Your task to perform on an android device: Search for hotels in Austin Image 0: 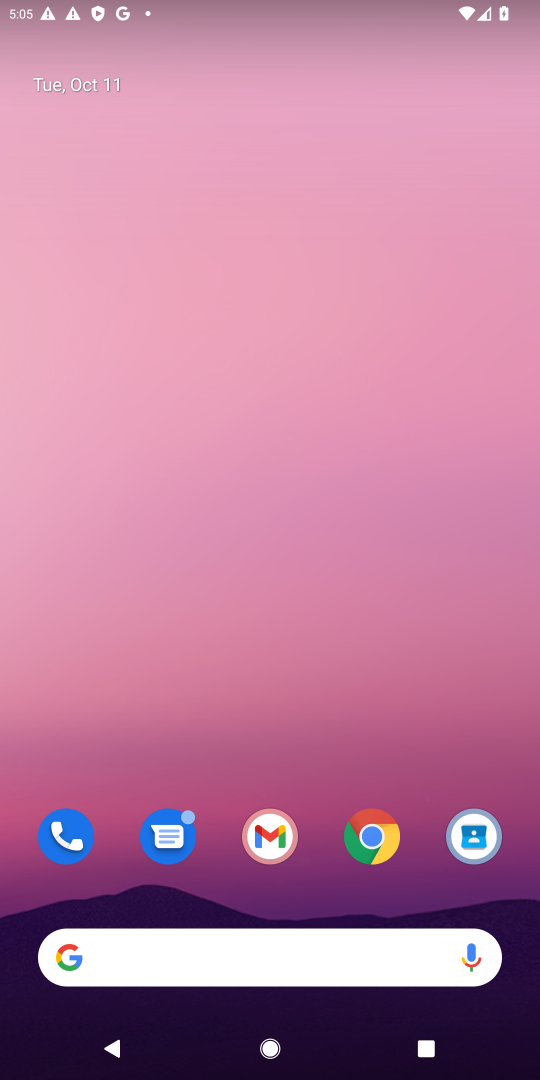
Step 0: click (365, 828)
Your task to perform on an android device: Search for hotels in Austin Image 1: 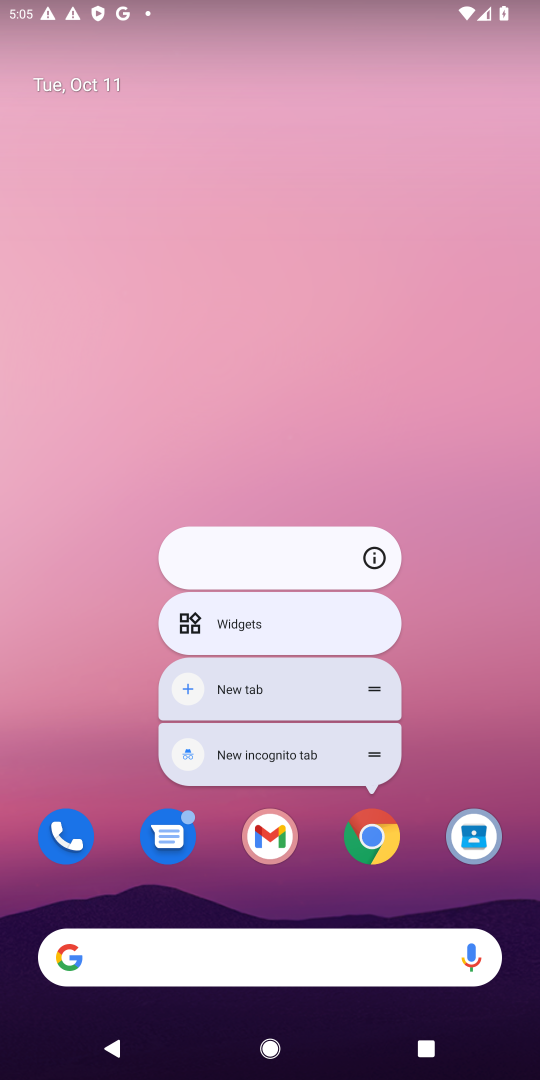
Step 1: click (369, 827)
Your task to perform on an android device: Search for hotels in Austin Image 2: 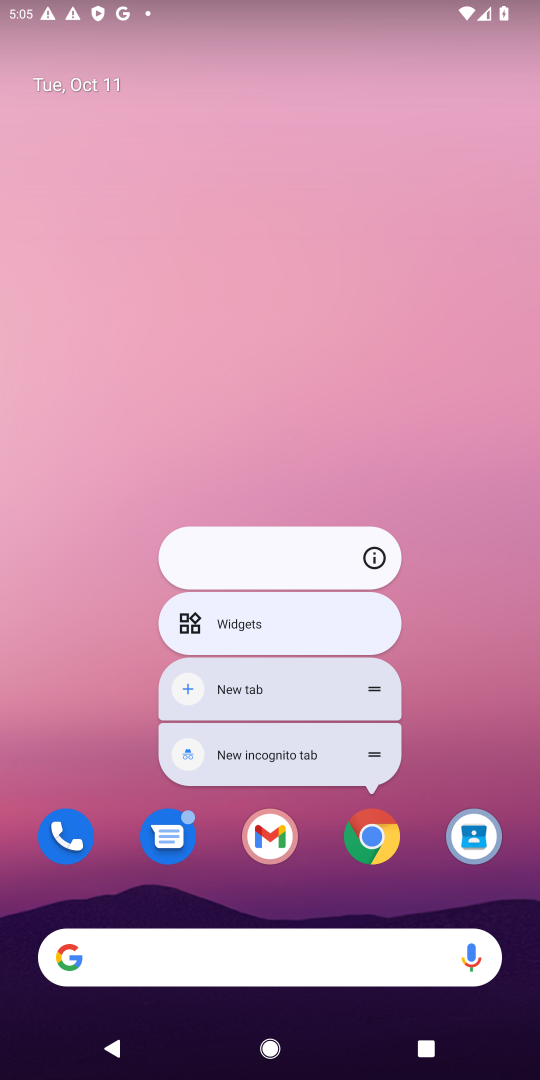
Step 2: click (369, 825)
Your task to perform on an android device: Search for hotels in Austin Image 3: 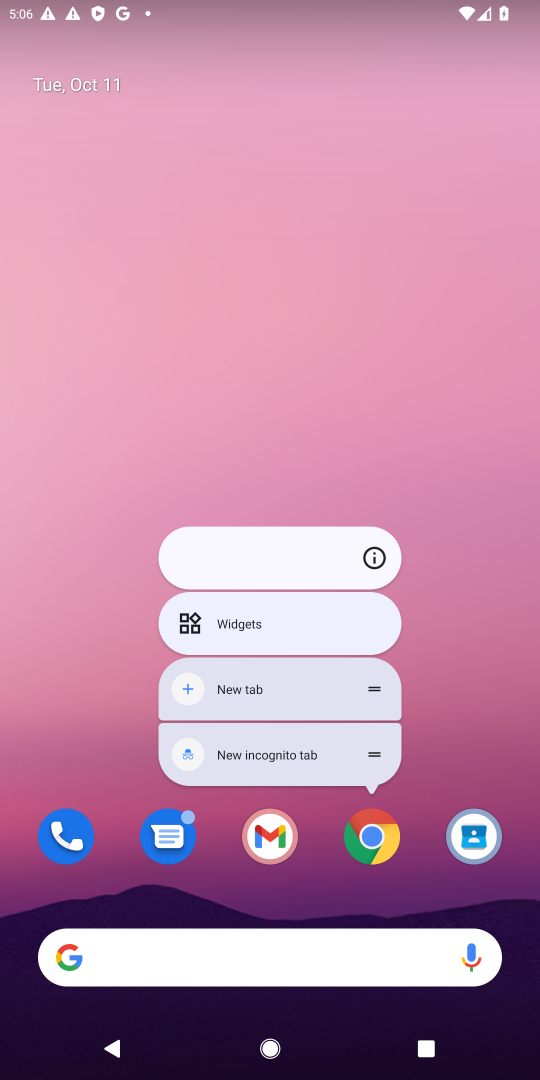
Step 3: click (368, 834)
Your task to perform on an android device: Search for hotels in Austin Image 4: 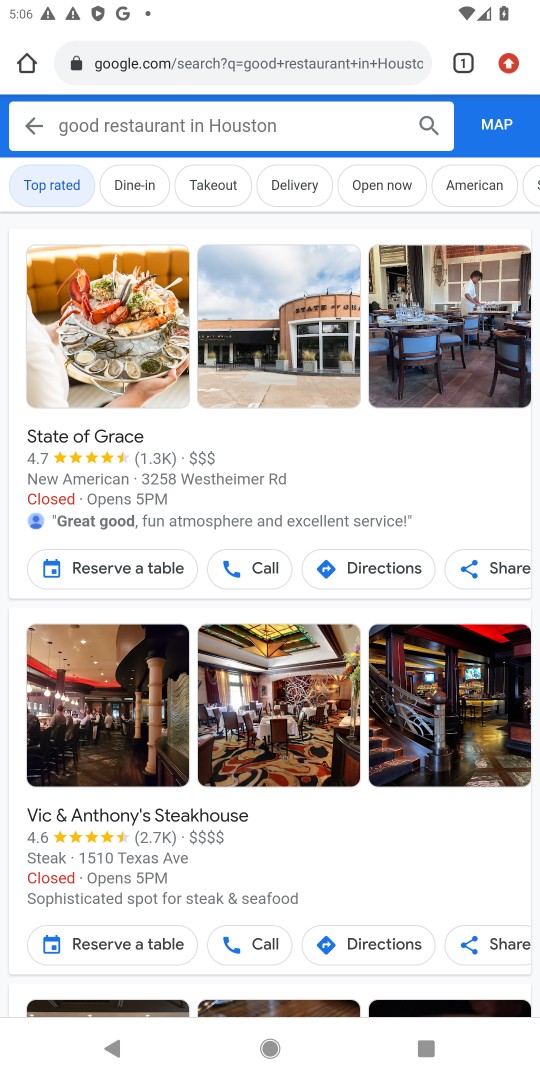
Step 4: click (283, 56)
Your task to perform on an android device: Search for hotels in Austin Image 5: 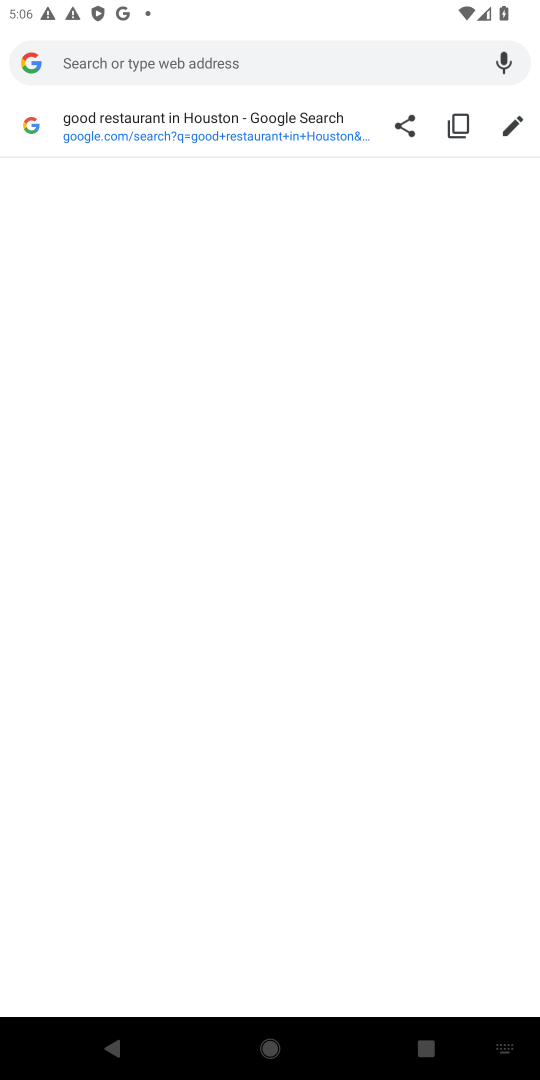
Step 5: type "hotels in Austin"
Your task to perform on an android device: Search for hotels in Austin Image 6: 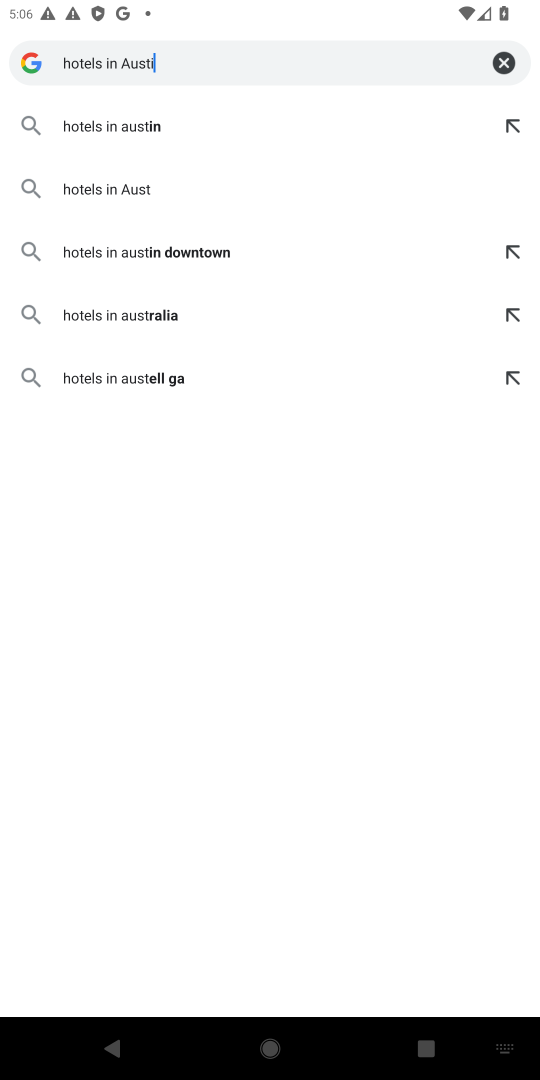
Step 6: press enter
Your task to perform on an android device: Search for hotels in Austin Image 7: 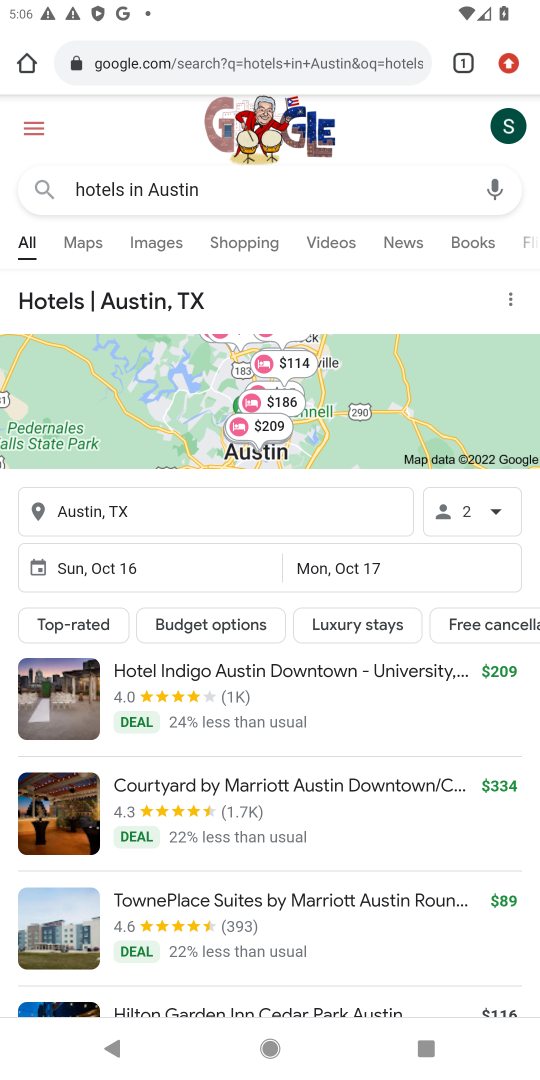
Step 7: drag from (138, 734) to (221, 332)
Your task to perform on an android device: Search for hotels in Austin Image 8: 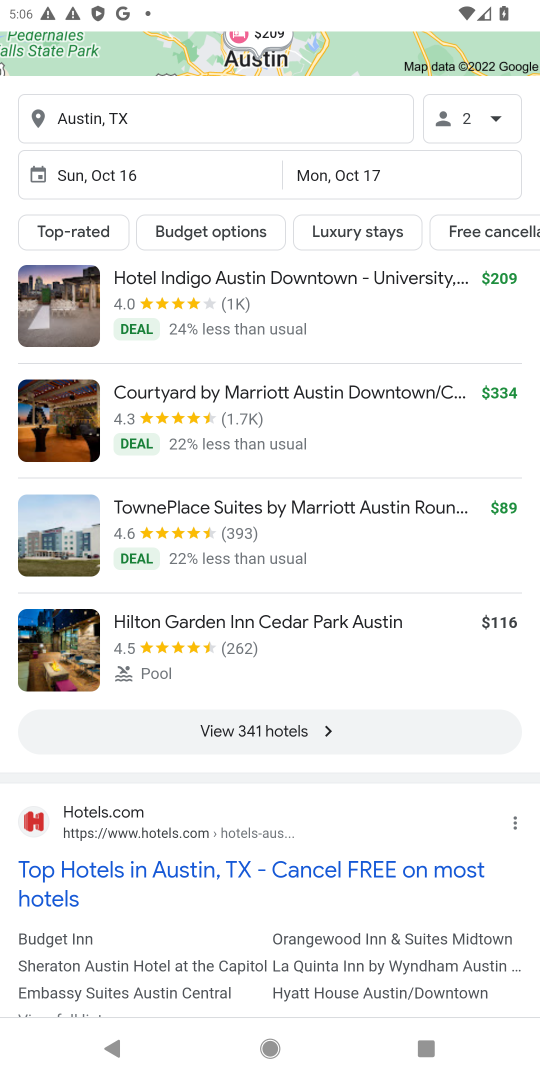
Step 8: click (301, 728)
Your task to perform on an android device: Search for hotels in Austin Image 9: 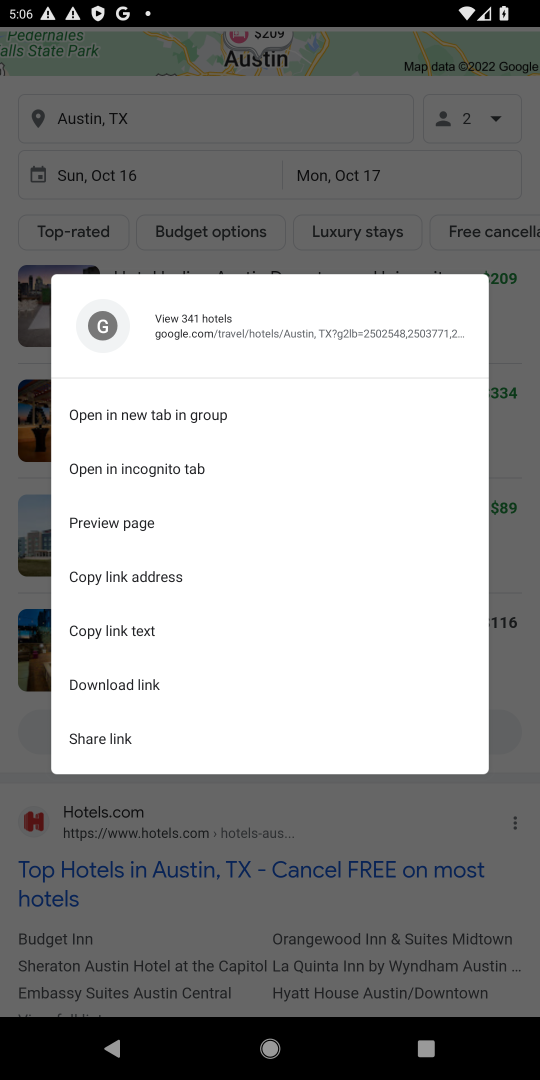
Step 9: click (504, 738)
Your task to perform on an android device: Search for hotels in Austin Image 10: 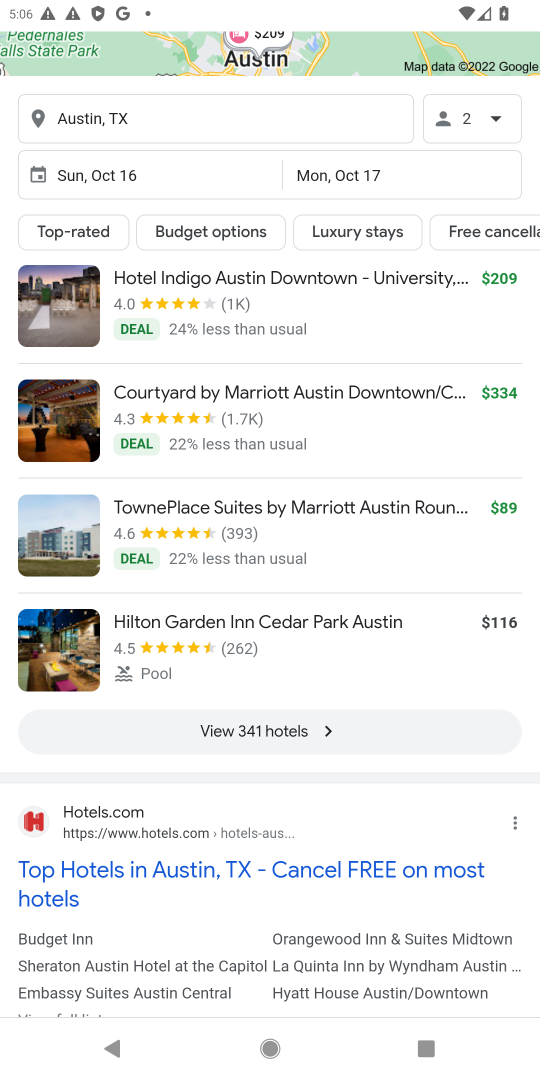
Step 10: click (265, 730)
Your task to perform on an android device: Search for hotels in Austin Image 11: 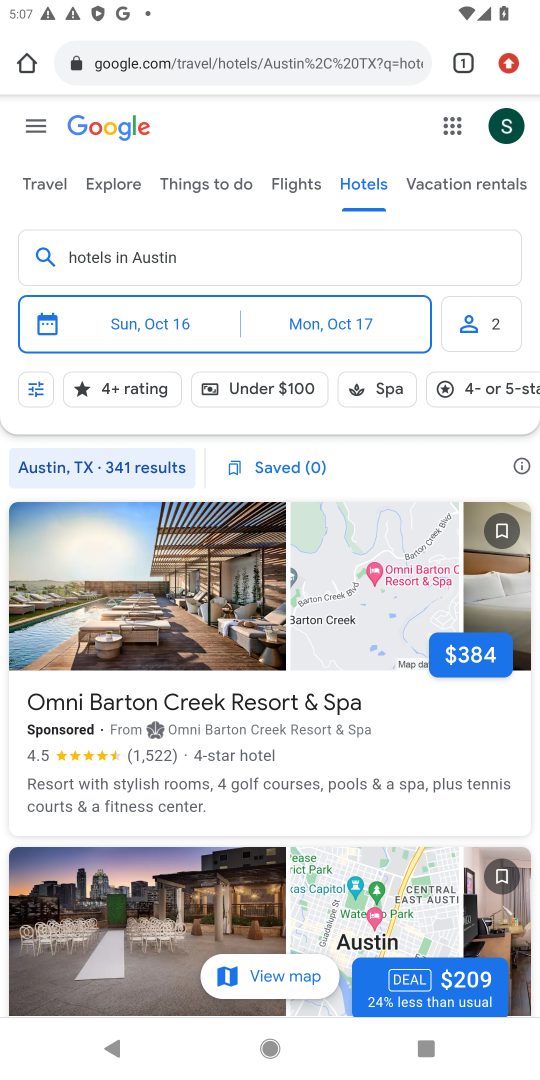
Step 11: task complete